Your task to perform on an android device: turn off translation in the chrome app Image 0: 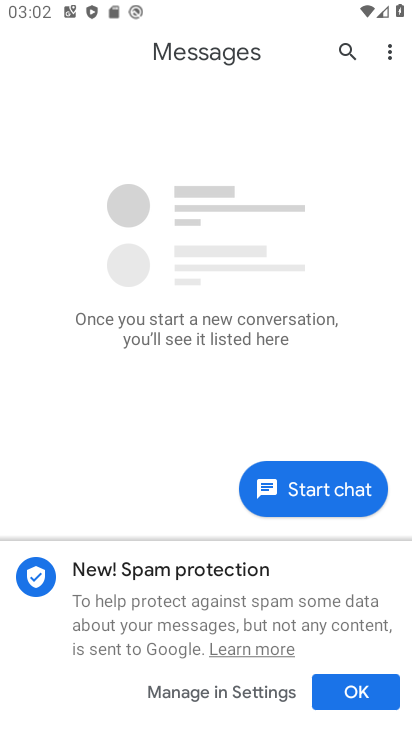
Step 0: press home button
Your task to perform on an android device: turn off translation in the chrome app Image 1: 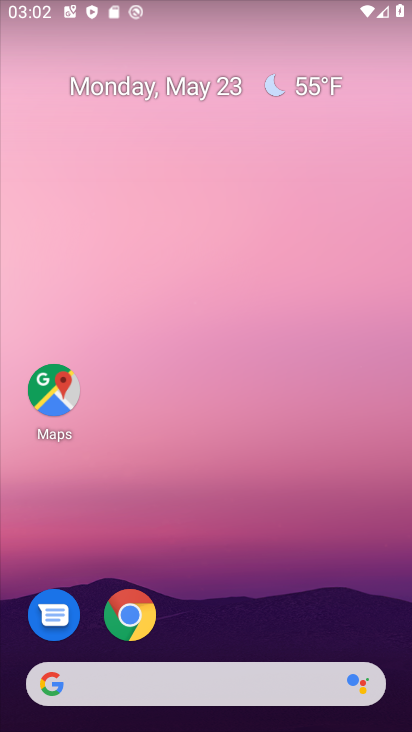
Step 1: drag from (339, 622) to (337, 245)
Your task to perform on an android device: turn off translation in the chrome app Image 2: 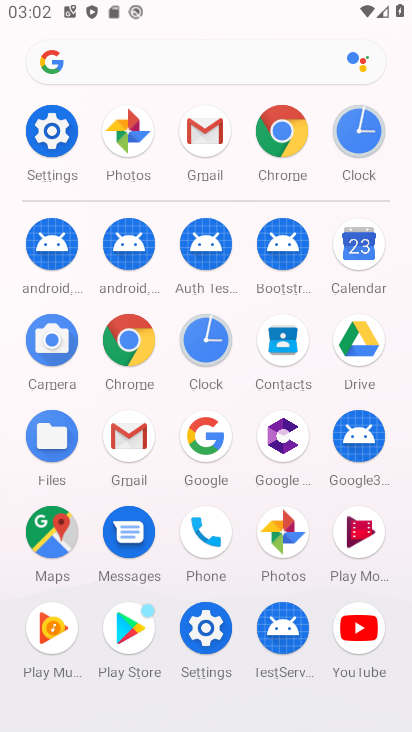
Step 2: click (135, 350)
Your task to perform on an android device: turn off translation in the chrome app Image 3: 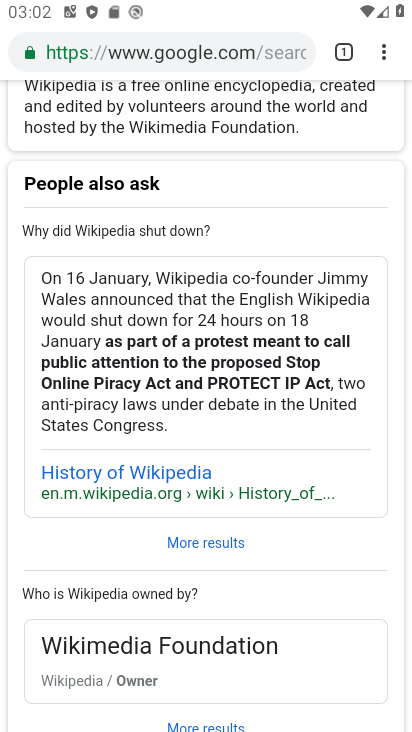
Step 3: click (383, 62)
Your task to perform on an android device: turn off translation in the chrome app Image 4: 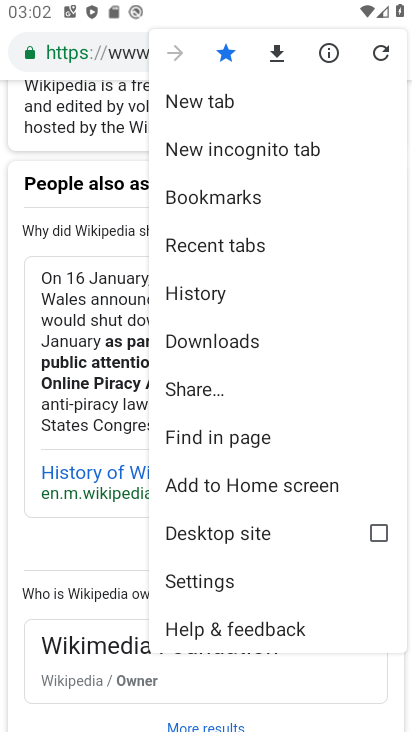
Step 4: drag from (288, 557) to (283, 422)
Your task to perform on an android device: turn off translation in the chrome app Image 5: 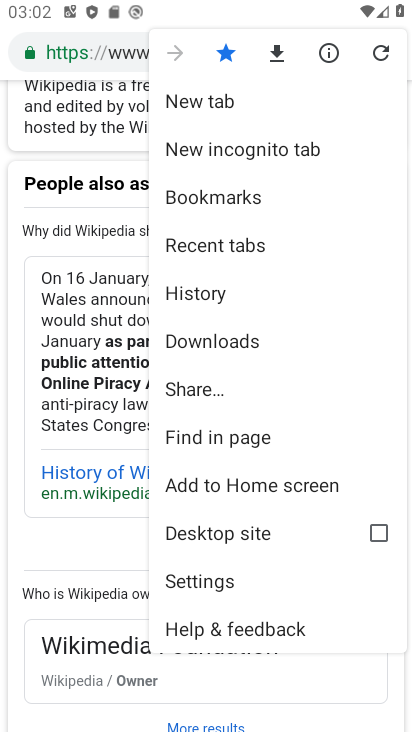
Step 5: click (220, 594)
Your task to perform on an android device: turn off translation in the chrome app Image 6: 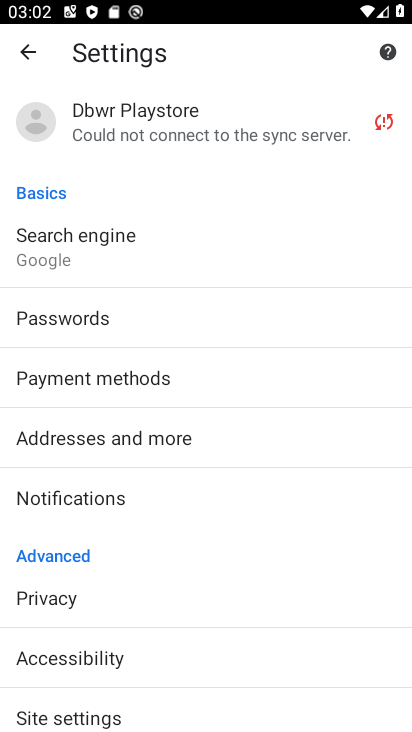
Step 6: drag from (273, 650) to (268, 515)
Your task to perform on an android device: turn off translation in the chrome app Image 7: 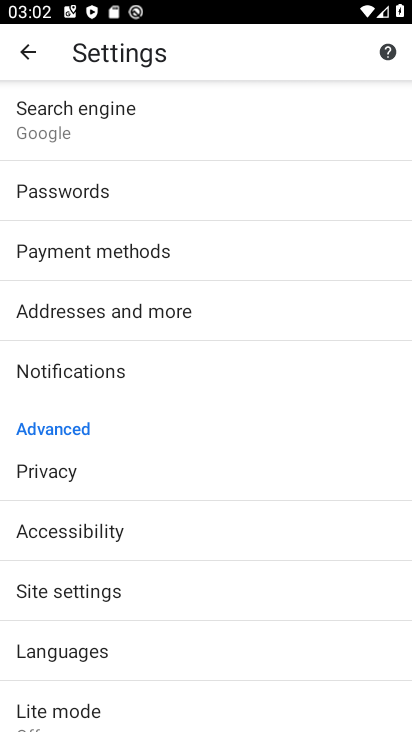
Step 7: drag from (290, 651) to (286, 527)
Your task to perform on an android device: turn off translation in the chrome app Image 8: 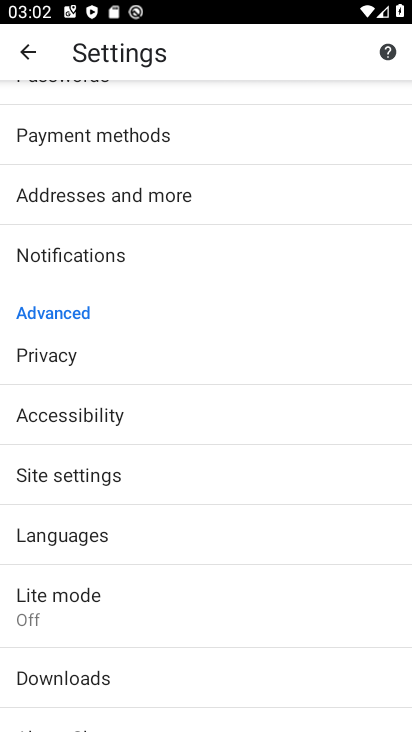
Step 8: drag from (252, 611) to (254, 523)
Your task to perform on an android device: turn off translation in the chrome app Image 9: 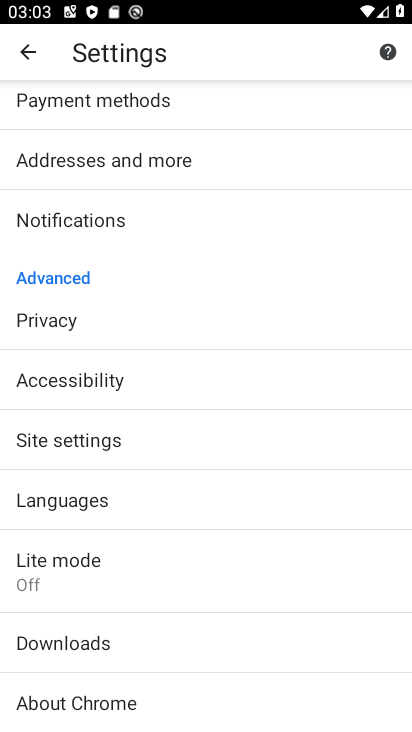
Step 9: drag from (219, 615) to (226, 500)
Your task to perform on an android device: turn off translation in the chrome app Image 10: 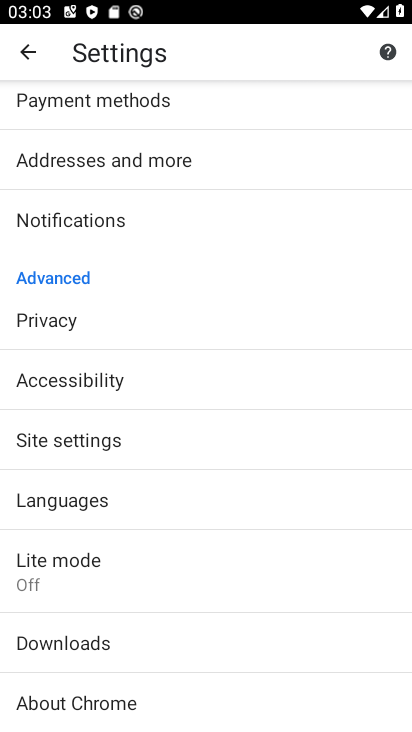
Step 10: click (204, 506)
Your task to perform on an android device: turn off translation in the chrome app Image 11: 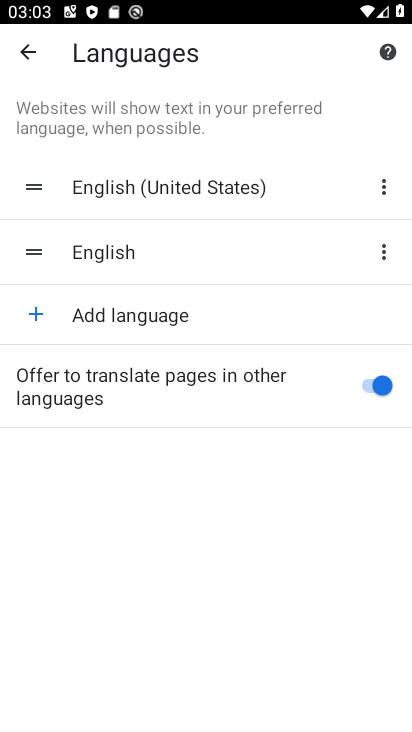
Step 11: click (370, 383)
Your task to perform on an android device: turn off translation in the chrome app Image 12: 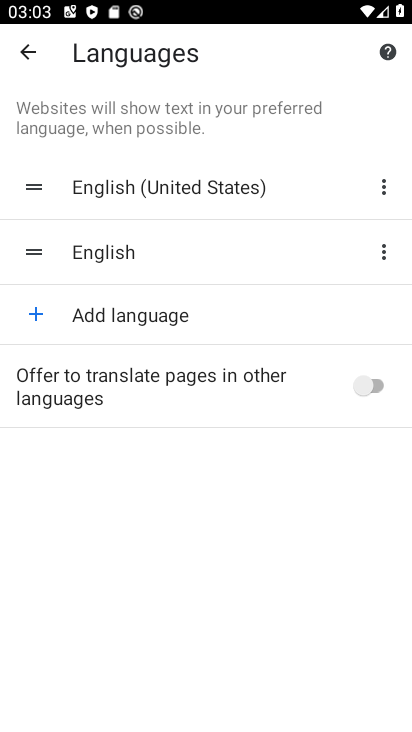
Step 12: task complete